Your task to perform on an android device: turn on translation in the chrome app Image 0: 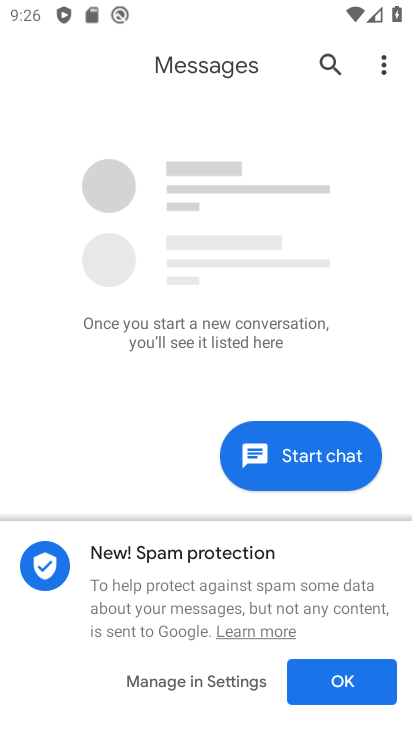
Step 0: click (370, 685)
Your task to perform on an android device: turn on translation in the chrome app Image 1: 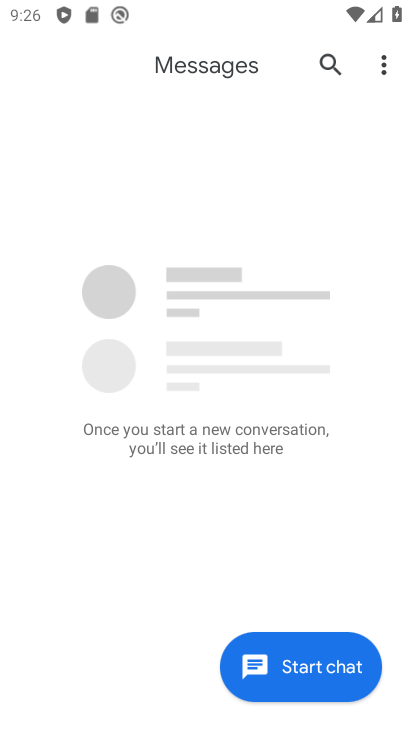
Step 1: press home button
Your task to perform on an android device: turn on translation in the chrome app Image 2: 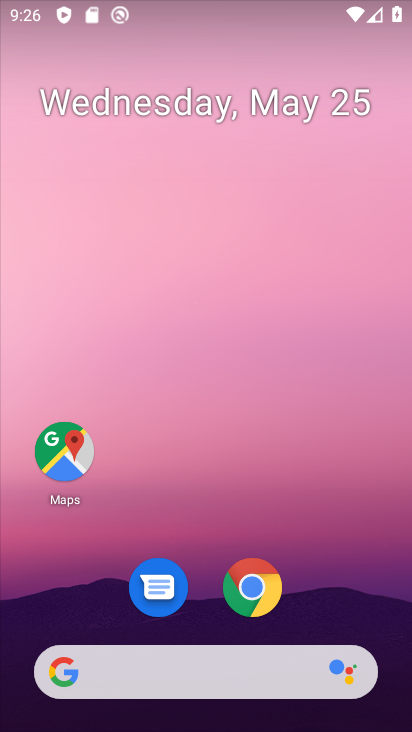
Step 2: drag from (207, 603) to (247, 14)
Your task to perform on an android device: turn on translation in the chrome app Image 3: 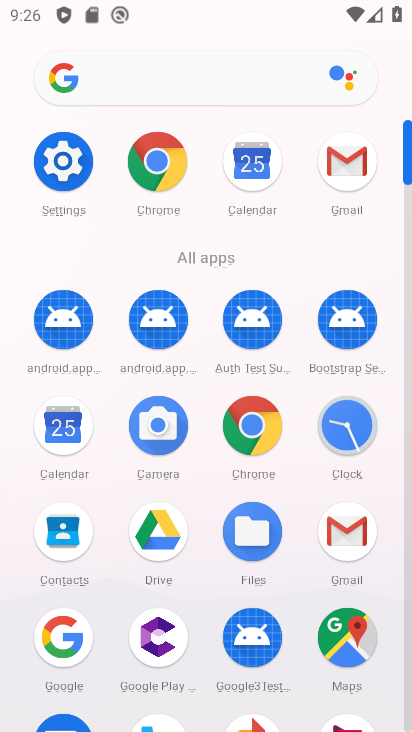
Step 3: click (155, 193)
Your task to perform on an android device: turn on translation in the chrome app Image 4: 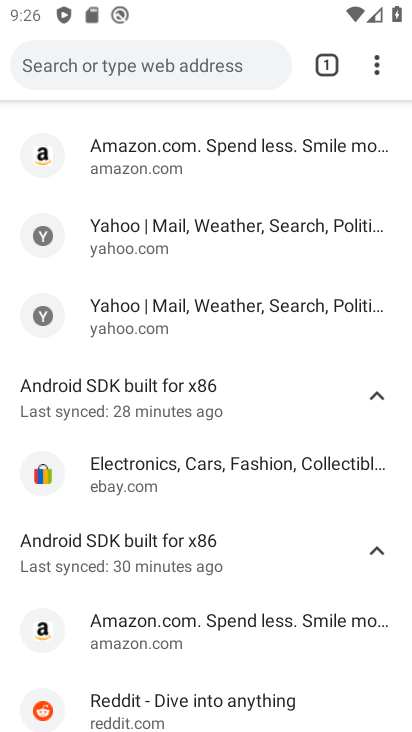
Step 4: click (384, 59)
Your task to perform on an android device: turn on translation in the chrome app Image 5: 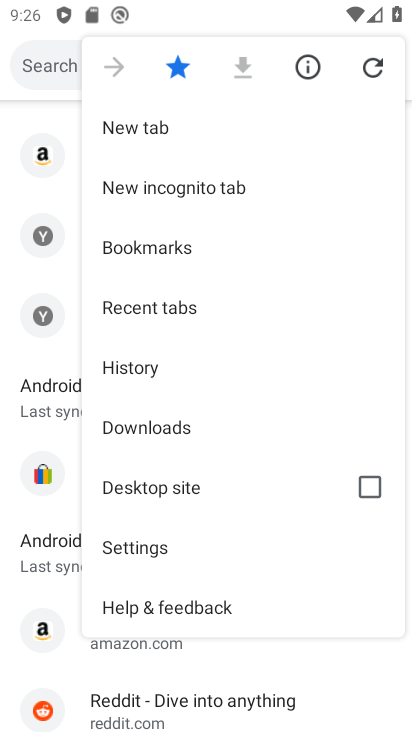
Step 5: click (134, 552)
Your task to perform on an android device: turn on translation in the chrome app Image 6: 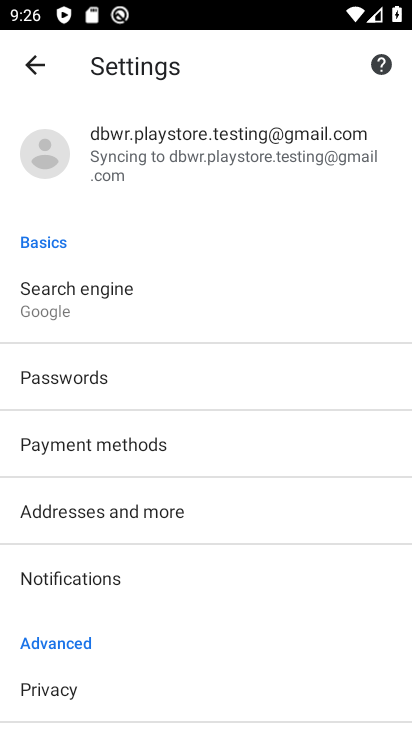
Step 6: drag from (57, 667) to (104, 283)
Your task to perform on an android device: turn on translation in the chrome app Image 7: 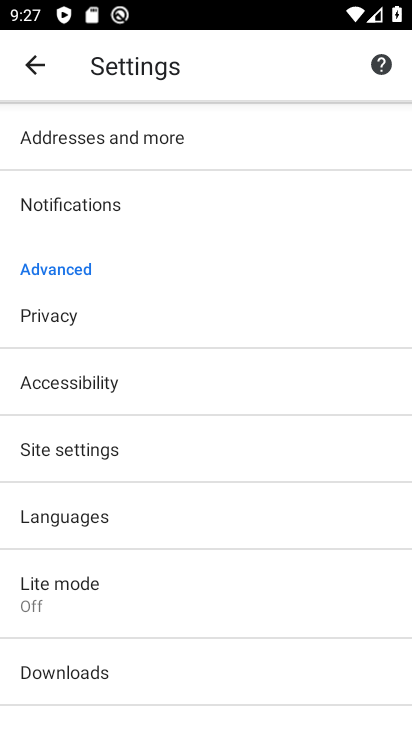
Step 7: click (78, 525)
Your task to perform on an android device: turn on translation in the chrome app Image 8: 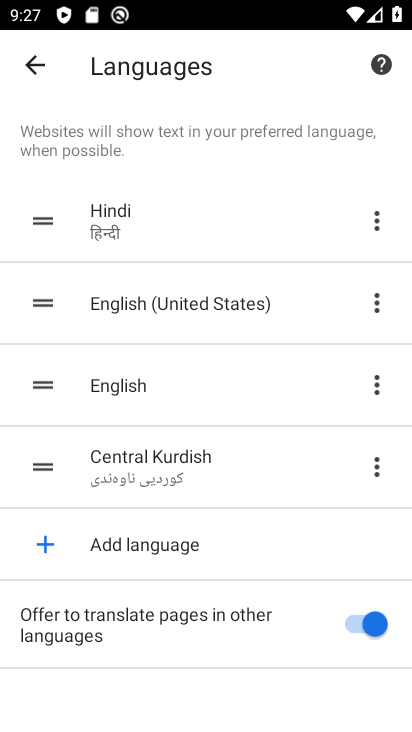
Step 8: task complete